Your task to perform on an android device: turn off wifi Image 0: 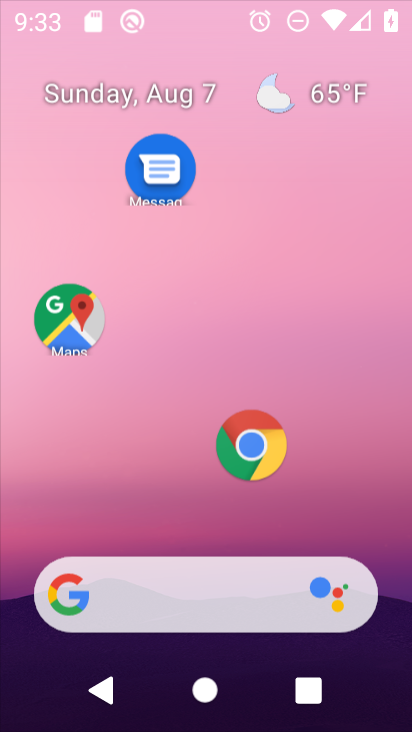
Step 0: press home button
Your task to perform on an android device: turn off wifi Image 1: 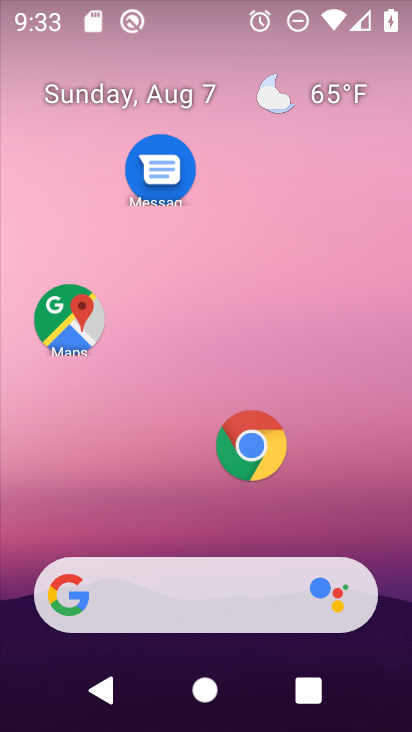
Step 1: drag from (210, 531) to (207, 111)
Your task to perform on an android device: turn off wifi Image 2: 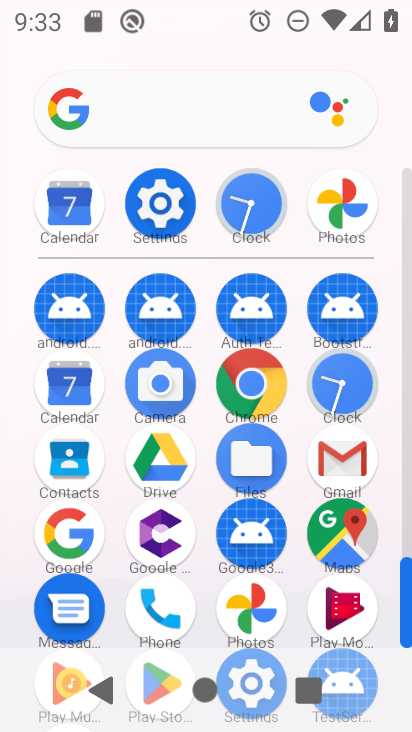
Step 2: click (158, 193)
Your task to perform on an android device: turn off wifi Image 3: 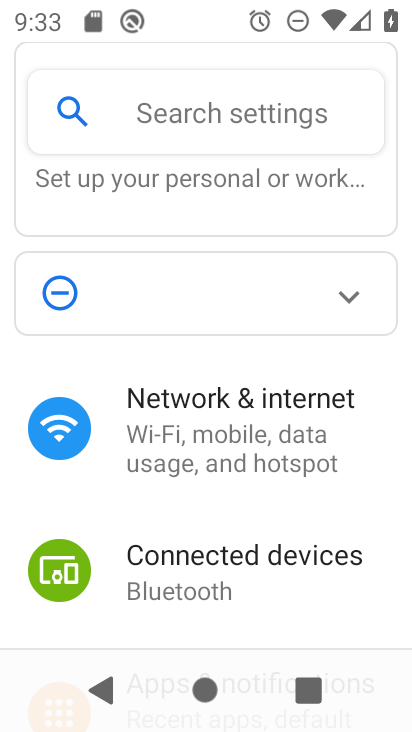
Step 3: click (104, 419)
Your task to perform on an android device: turn off wifi Image 4: 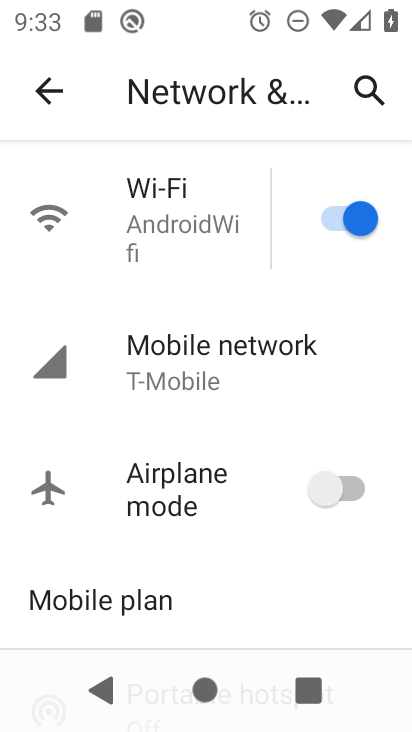
Step 4: click (335, 212)
Your task to perform on an android device: turn off wifi Image 5: 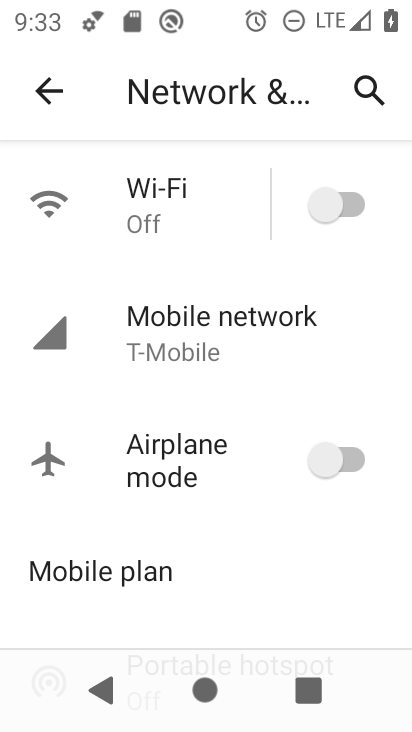
Step 5: task complete